Your task to perform on an android device: check data usage Image 0: 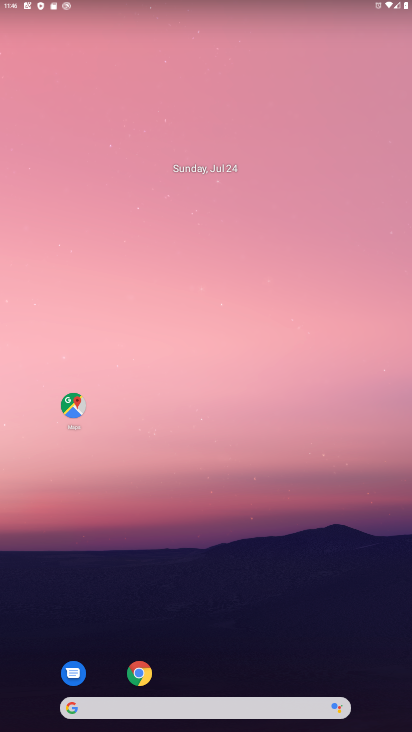
Step 0: drag from (298, 573) to (374, 89)
Your task to perform on an android device: check data usage Image 1: 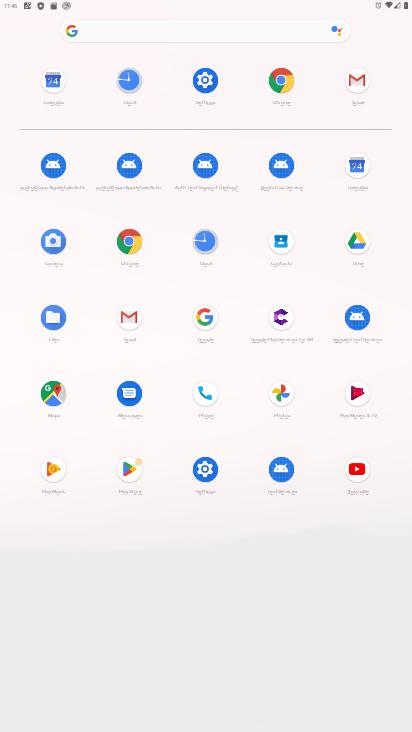
Step 1: click (203, 75)
Your task to perform on an android device: check data usage Image 2: 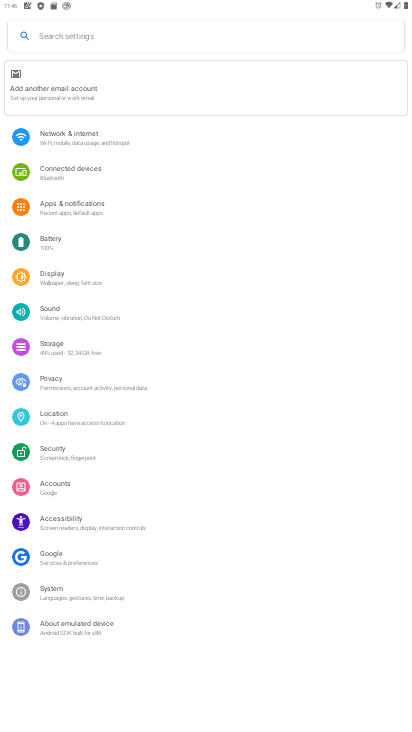
Step 2: click (87, 139)
Your task to perform on an android device: check data usage Image 3: 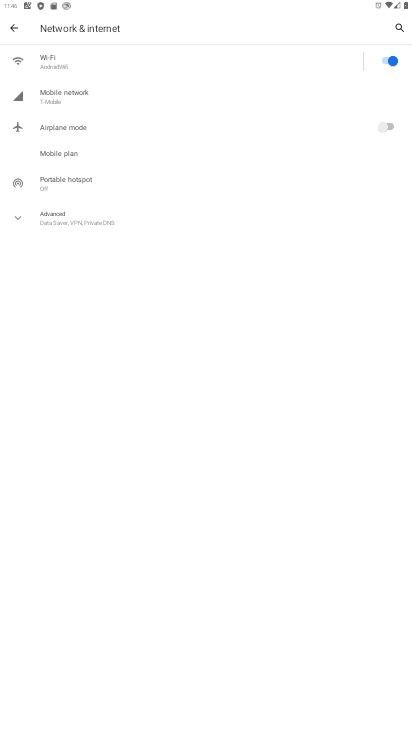
Step 3: click (91, 96)
Your task to perform on an android device: check data usage Image 4: 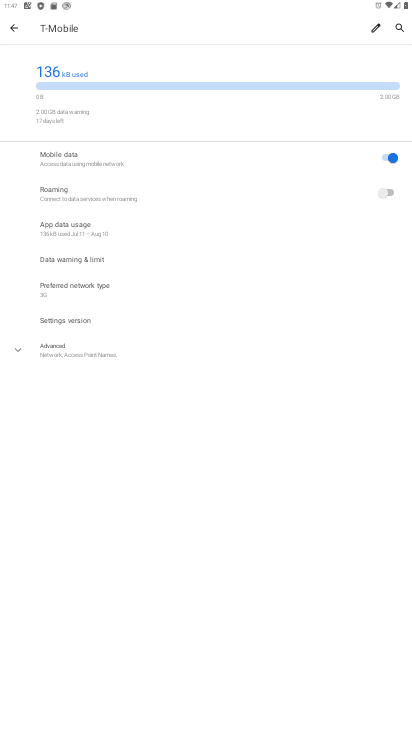
Step 4: task complete